Your task to perform on an android device: turn on translation in the chrome app Image 0: 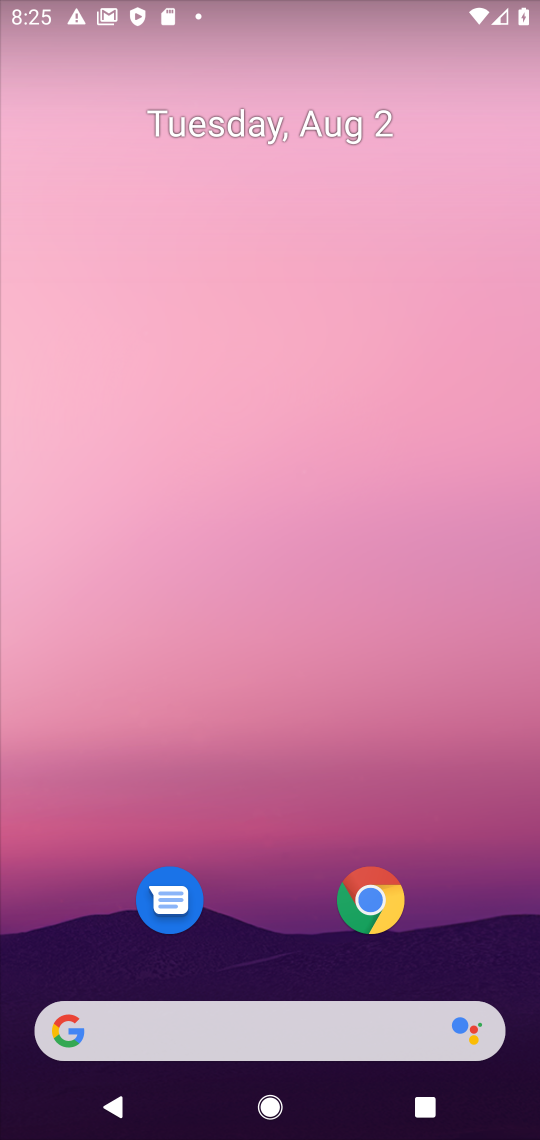
Step 0: click (361, 894)
Your task to perform on an android device: turn on translation in the chrome app Image 1: 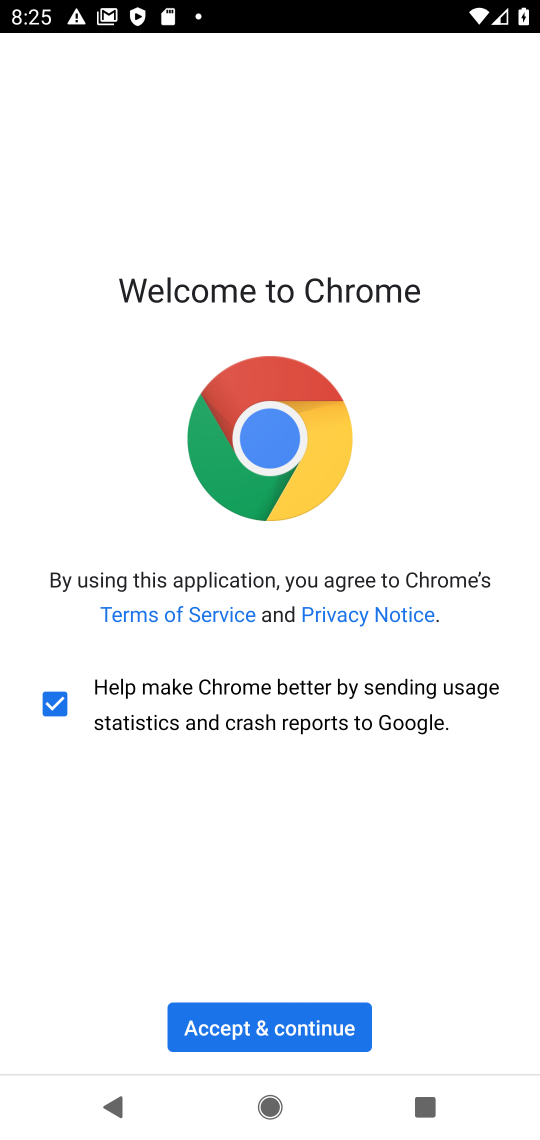
Step 1: click (321, 1028)
Your task to perform on an android device: turn on translation in the chrome app Image 2: 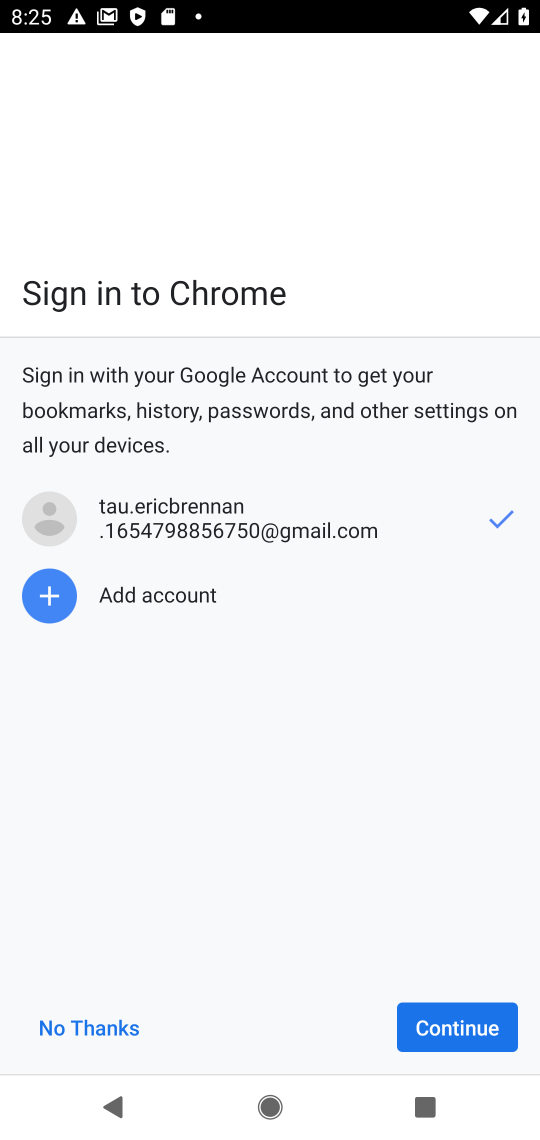
Step 2: click (470, 1034)
Your task to perform on an android device: turn on translation in the chrome app Image 3: 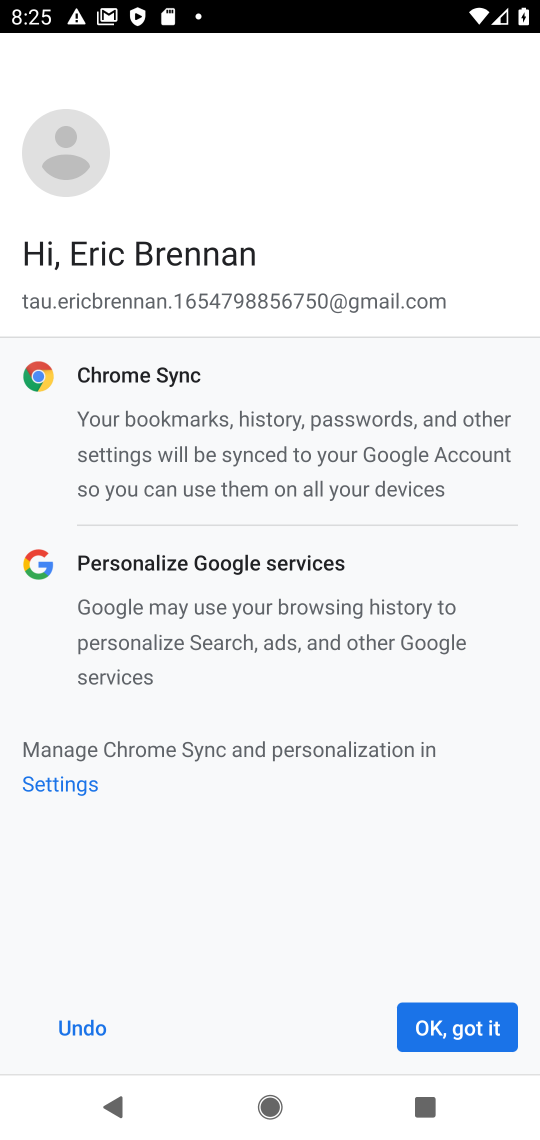
Step 3: click (470, 1034)
Your task to perform on an android device: turn on translation in the chrome app Image 4: 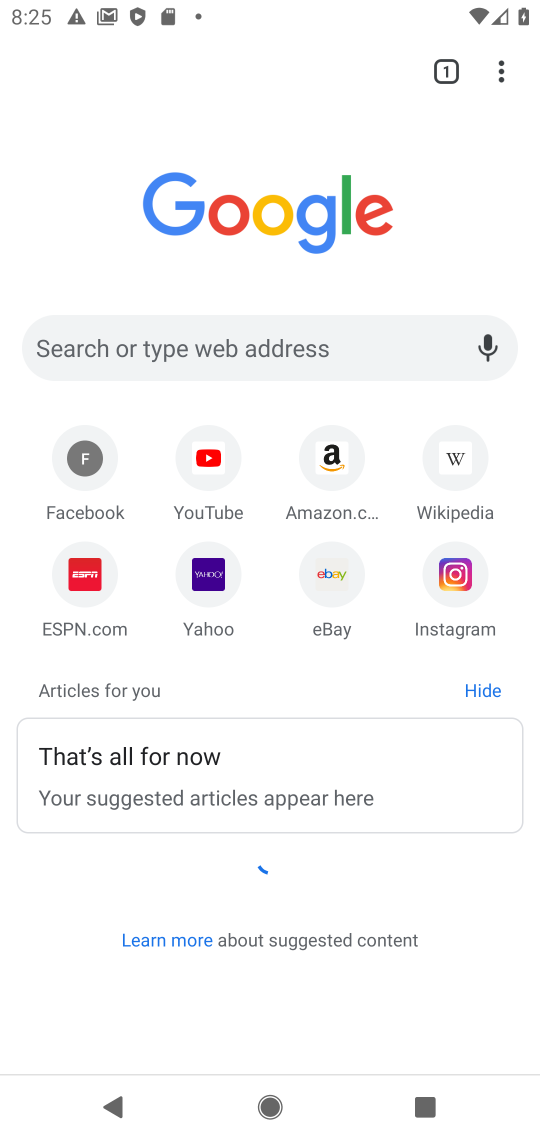
Step 4: click (499, 63)
Your task to perform on an android device: turn on translation in the chrome app Image 5: 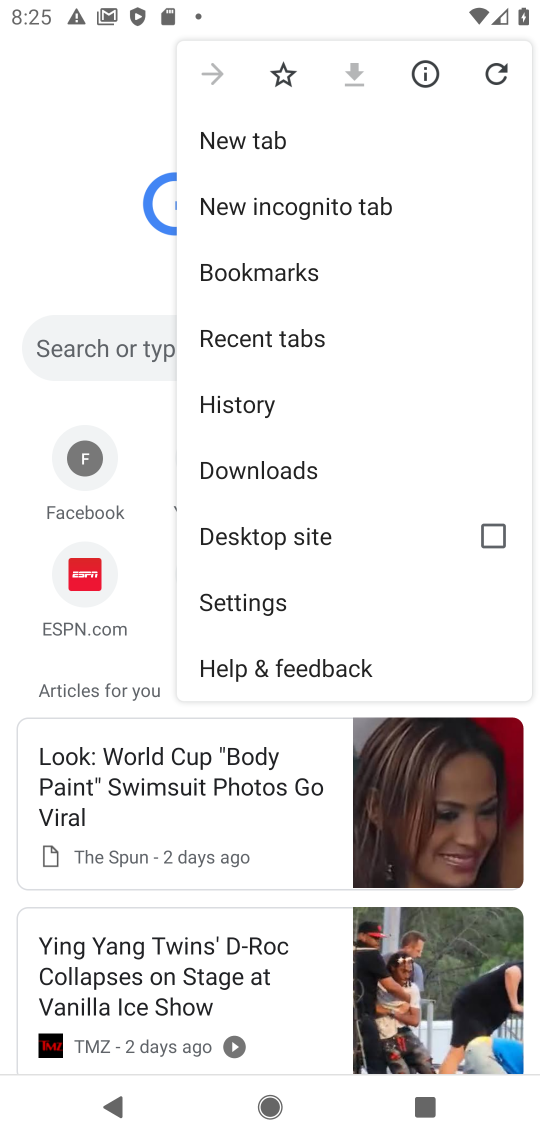
Step 5: click (270, 605)
Your task to perform on an android device: turn on translation in the chrome app Image 6: 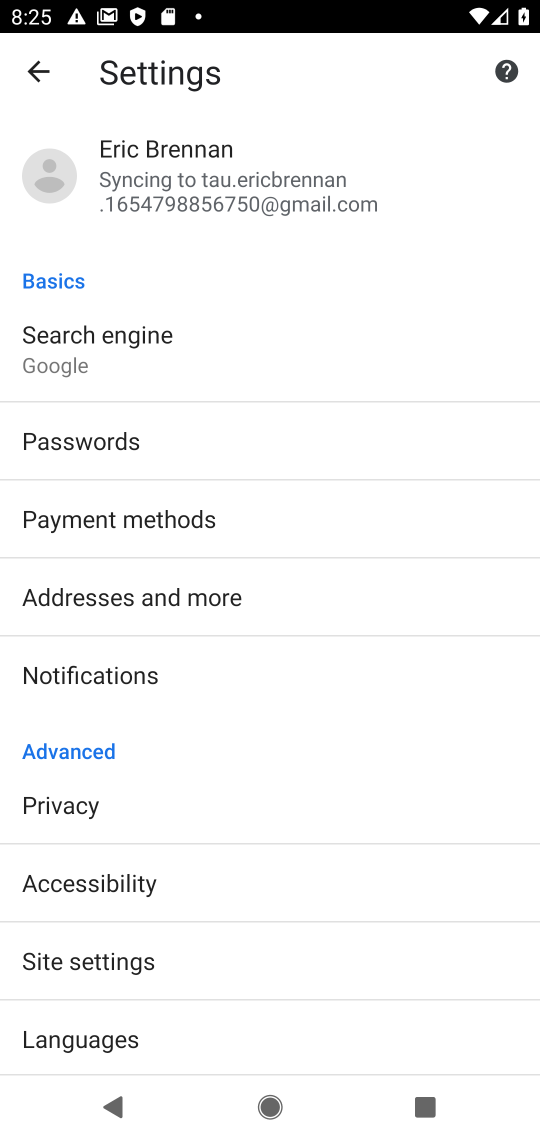
Step 6: click (113, 1048)
Your task to perform on an android device: turn on translation in the chrome app Image 7: 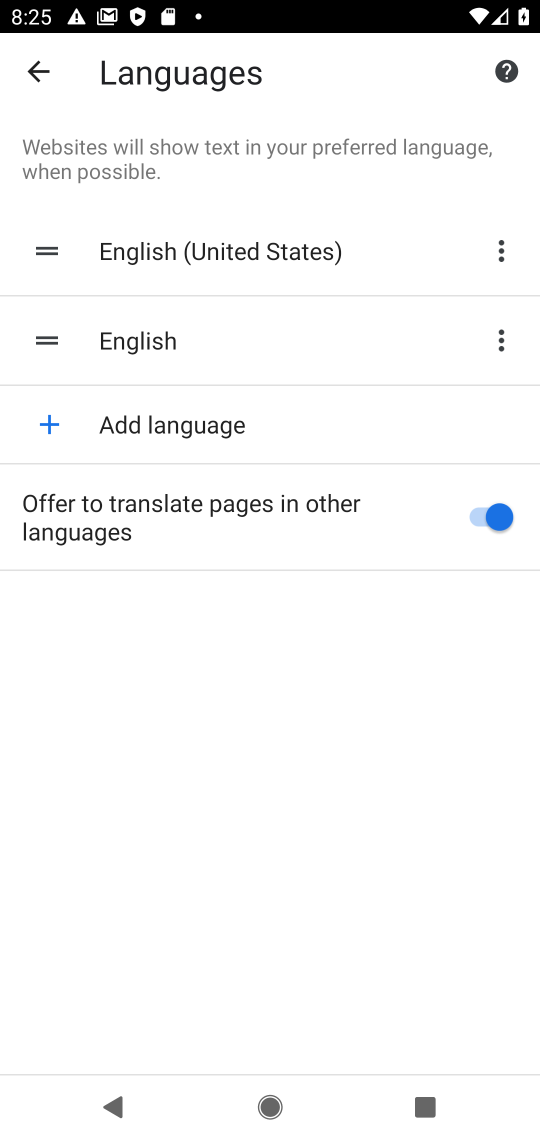
Step 7: task complete